Your task to perform on an android device: Show me recent news Image 0: 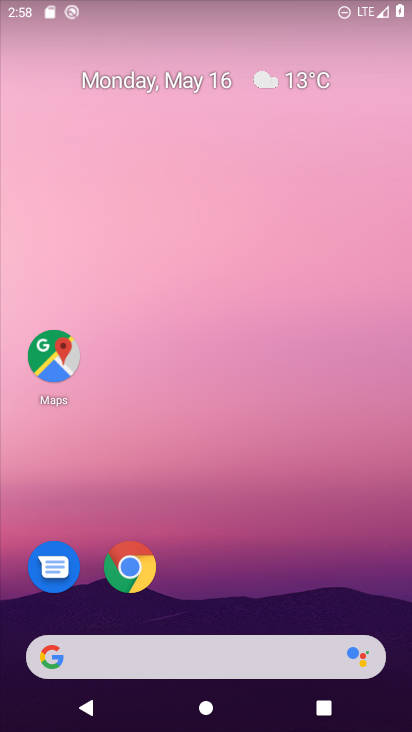
Step 0: drag from (15, 220) to (410, 300)
Your task to perform on an android device: Show me recent news Image 1: 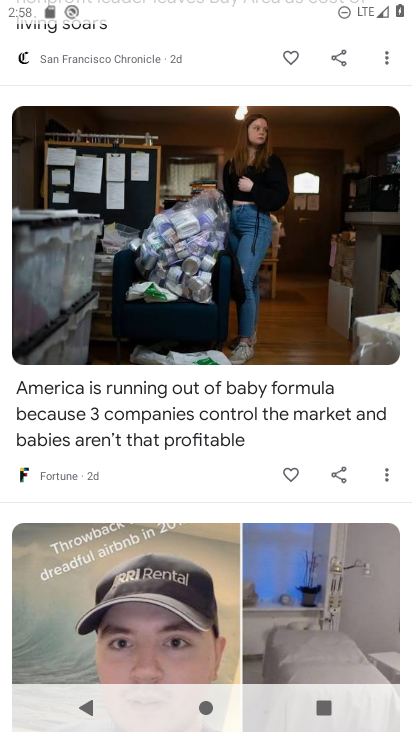
Step 1: task complete